Your task to perform on an android device: Open Reddit.com Image 0: 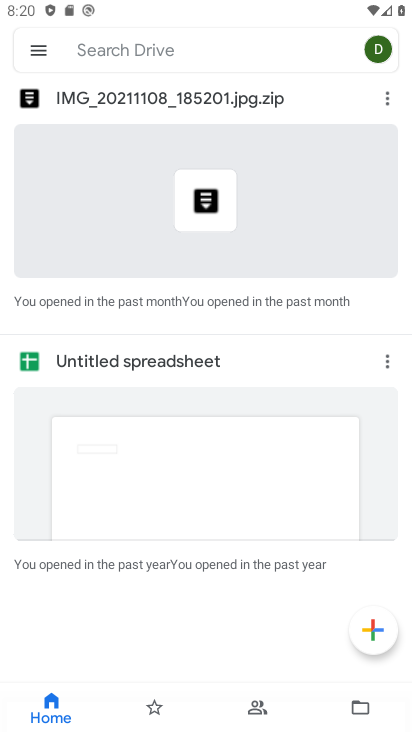
Step 0: press home button
Your task to perform on an android device: Open Reddit.com Image 1: 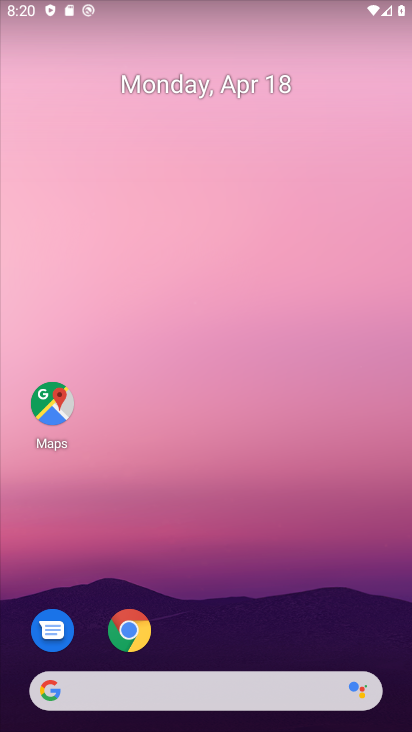
Step 1: click (133, 629)
Your task to perform on an android device: Open Reddit.com Image 2: 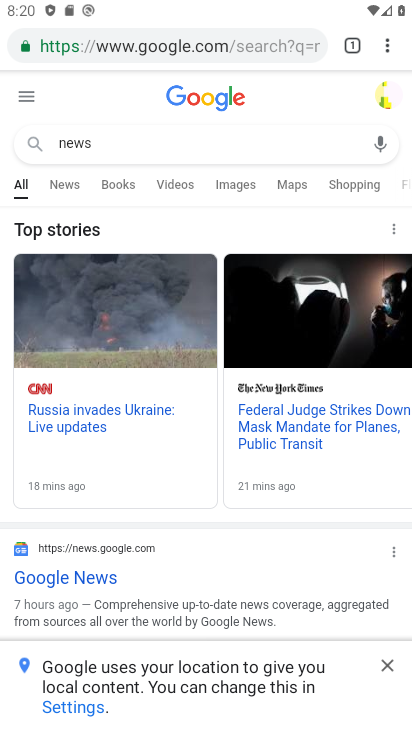
Step 2: click (182, 53)
Your task to perform on an android device: Open Reddit.com Image 3: 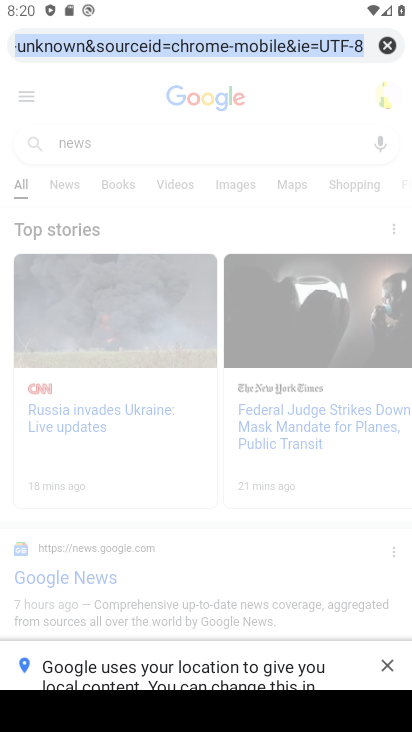
Step 3: type "reddit.com"
Your task to perform on an android device: Open Reddit.com Image 4: 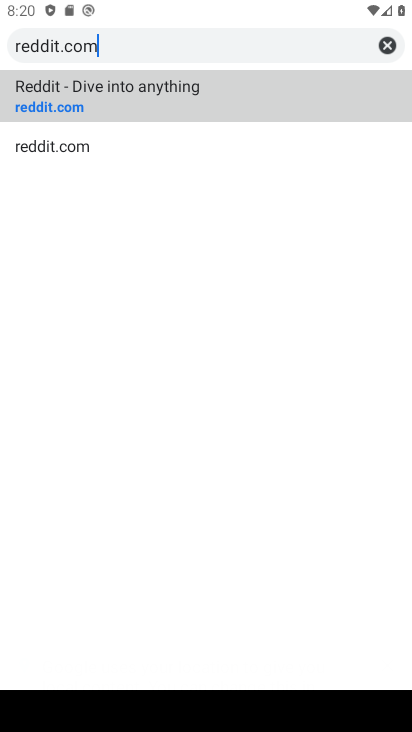
Step 4: click (73, 149)
Your task to perform on an android device: Open Reddit.com Image 5: 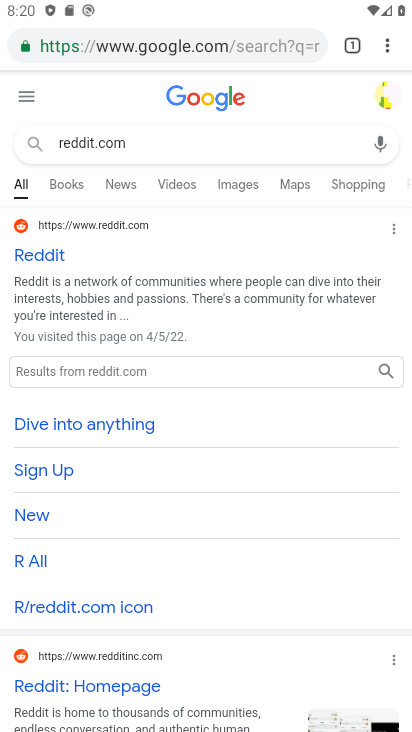
Step 5: task complete